Your task to perform on an android device: Open display settings Image 0: 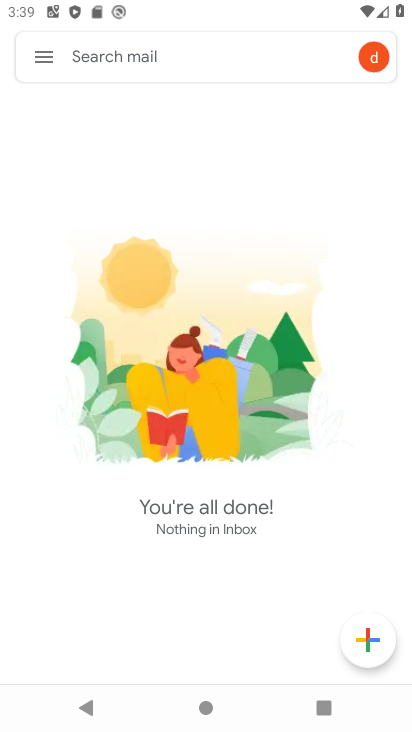
Step 0: press home button
Your task to perform on an android device: Open display settings Image 1: 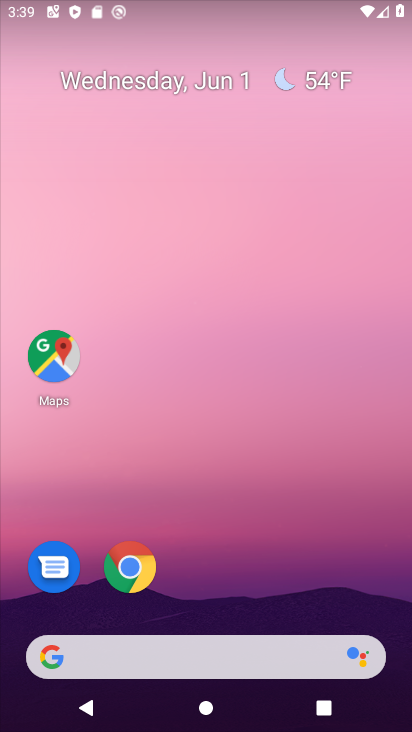
Step 1: drag from (177, 627) to (203, 334)
Your task to perform on an android device: Open display settings Image 2: 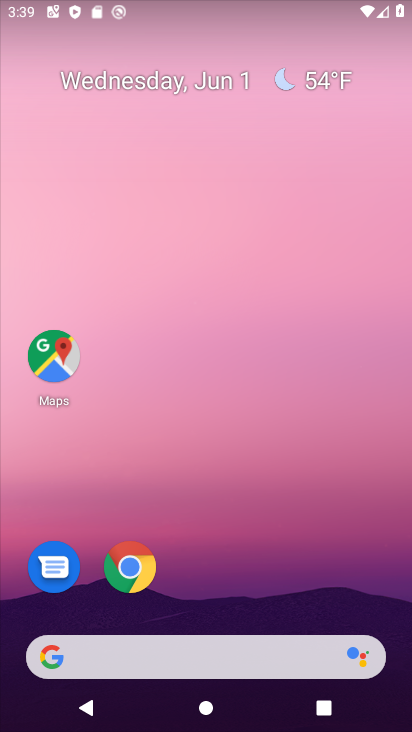
Step 2: drag from (300, 631) to (258, 282)
Your task to perform on an android device: Open display settings Image 3: 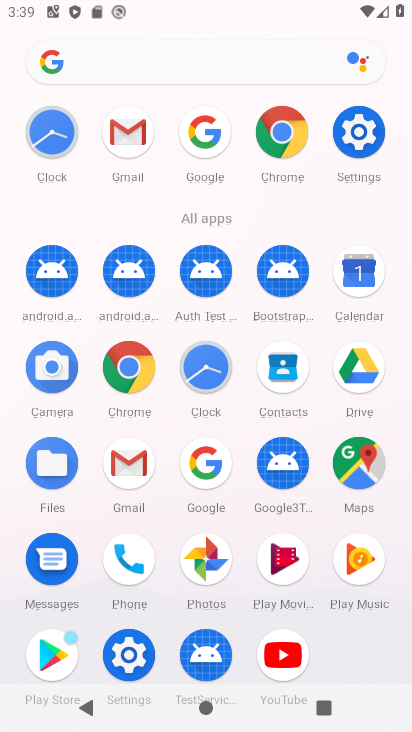
Step 3: click (366, 133)
Your task to perform on an android device: Open display settings Image 4: 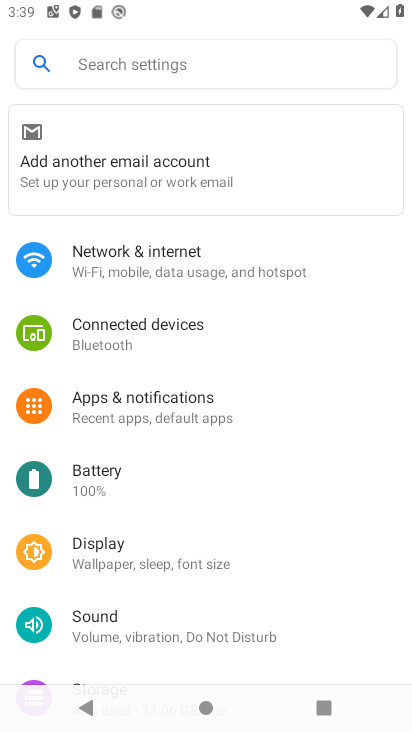
Step 4: click (233, 263)
Your task to perform on an android device: Open display settings Image 5: 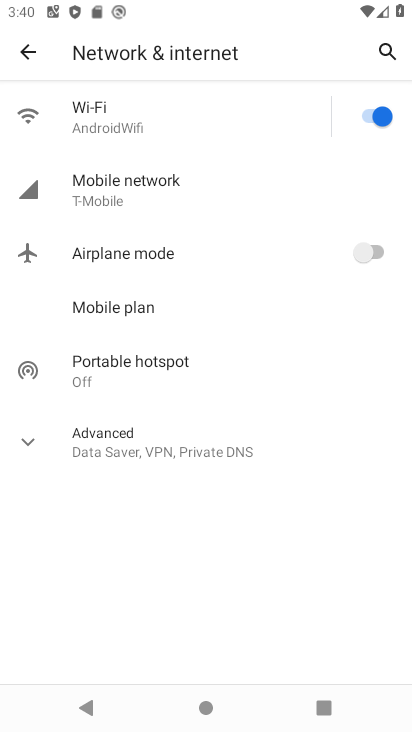
Step 5: task complete